Your task to perform on an android device: Go to network settings Image 0: 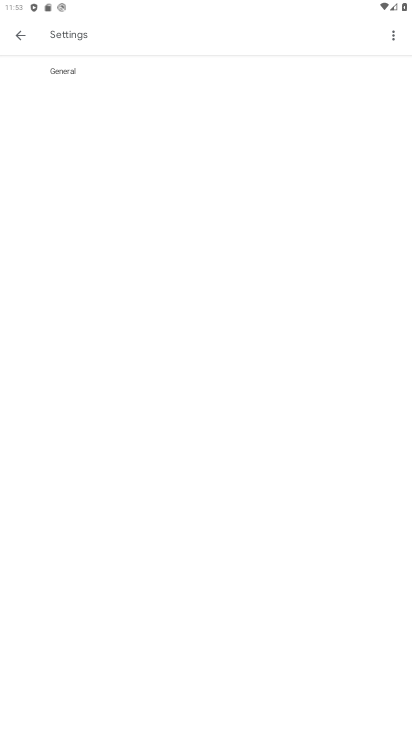
Step 0: press back button
Your task to perform on an android device: Go to network settings Image 1: 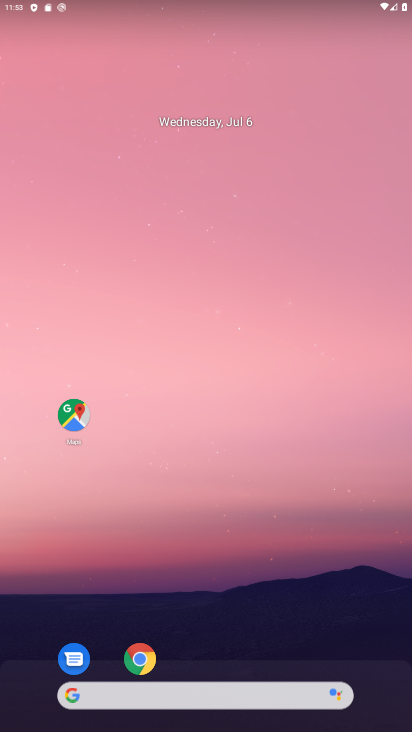
Step 1: drag from (198, 626) to (256, 90)
Your task to perform on an android device: Go to network settings Image 2: 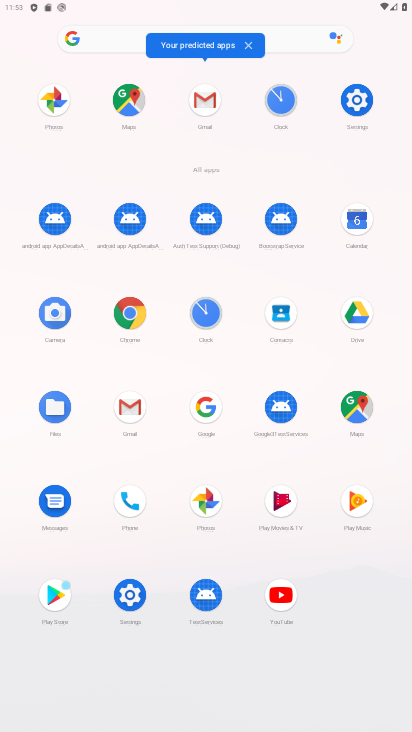
Step 2: click (354, 107)
Your task to perform on an android device: Go to network settings Image 3: 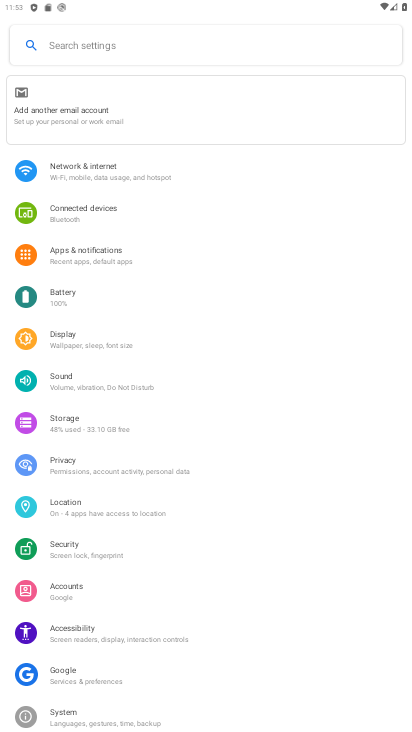
Step 3: click (124, 171)
Your task to perform on an android device: Go to network settings Image 4: 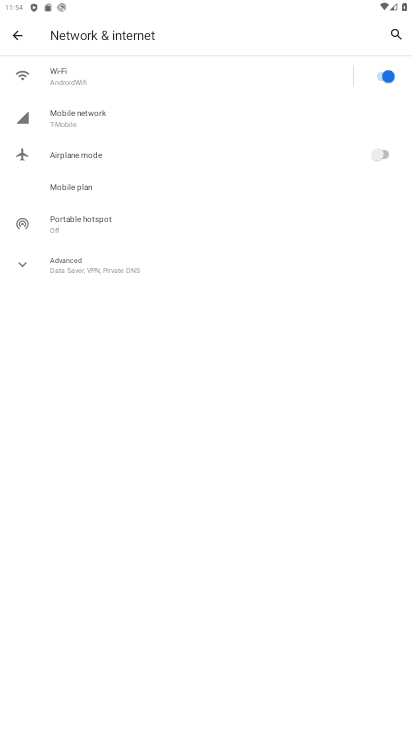
Step 4: task complete